Your task to perform on an android device: Search for Mexican restaurants on Maps Image 0: 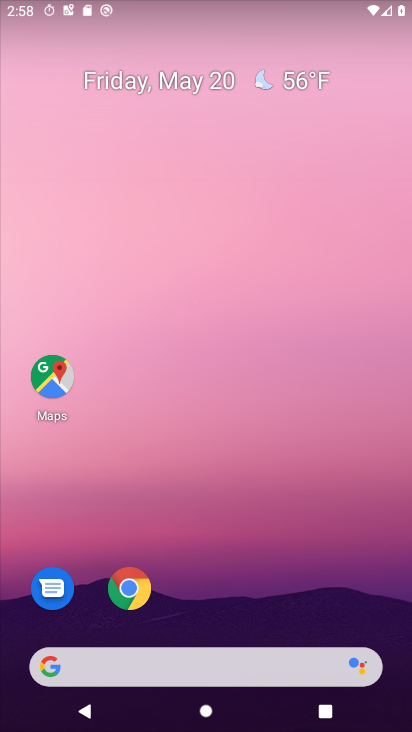
Step 0: click (54, 372)
Your task to perform on an android device: Search for Mexican restaurants on Maps Image 1: 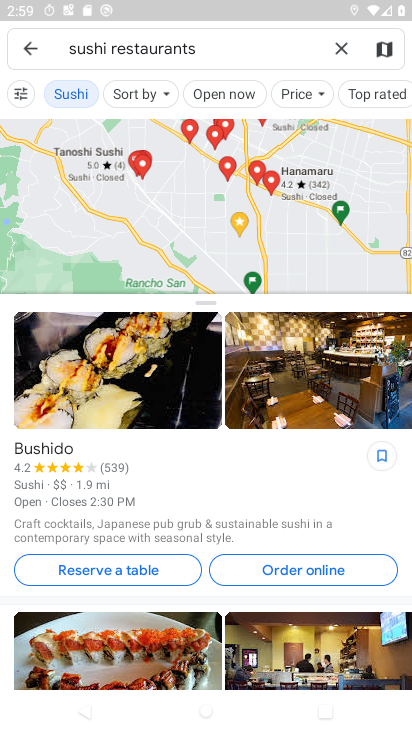
Step 1: click (345, 53)
Your task to perform on an android device: Search for Mexican restaurants on Maps Image 2: 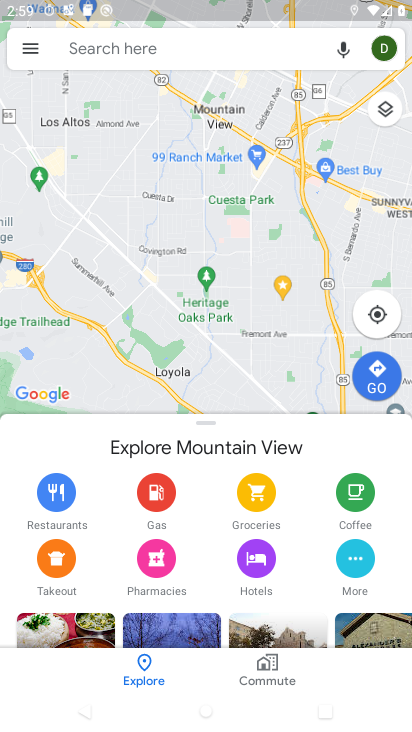
Step 2: click (206, 58)
Your task to perform on an android device: Search for Mexican restaurants on Maps Image 3: 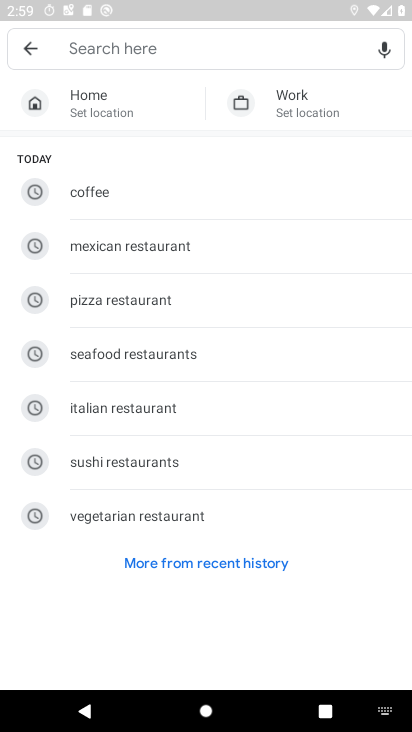
Step 3: click (99, 253)
Your task to perform on an android device: Search for Mexican restaurants on Maps Image 4: 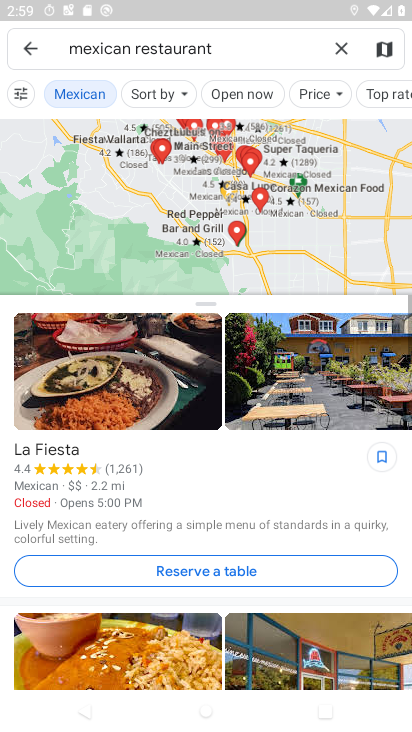
Step 4: task complete